Your task to perform on an android device: Search for pizza restaurants on Maps Image 0: 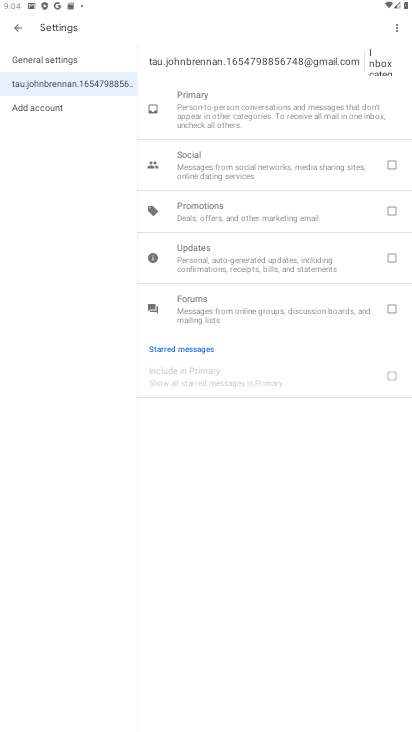
Step 0: press home button
Your task to perform on an android device: Search for pizza restaurants on Maps Image 1: 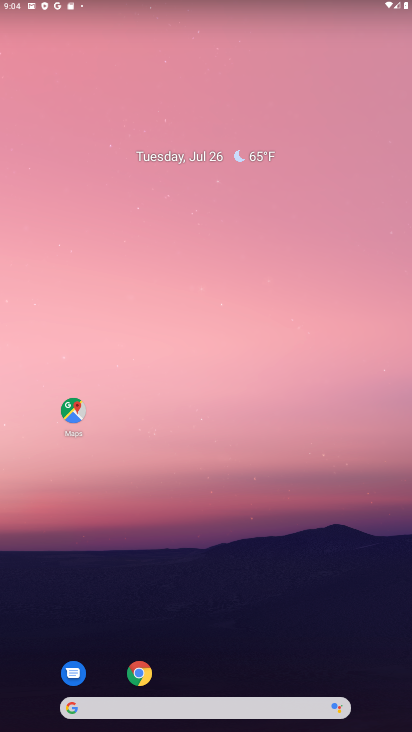
Step 1: click (73, 412)
Your task to perform on an android device: Search for pizza restaurants on Maps Image 2: 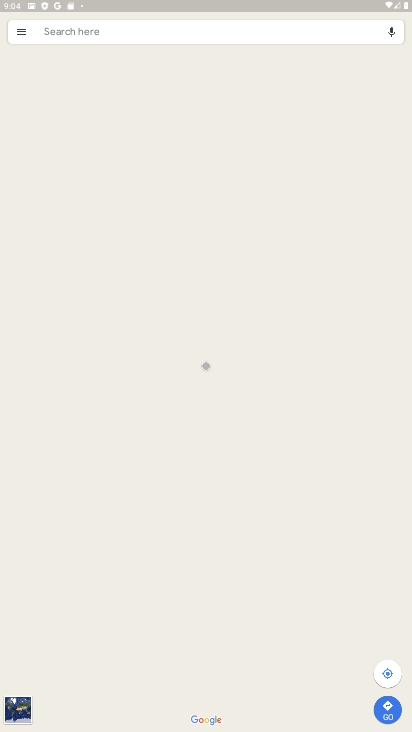
Step 2: click (108, 32)
Your task to perform on an android device: Search for pizza restaurants on Maps Image 3: 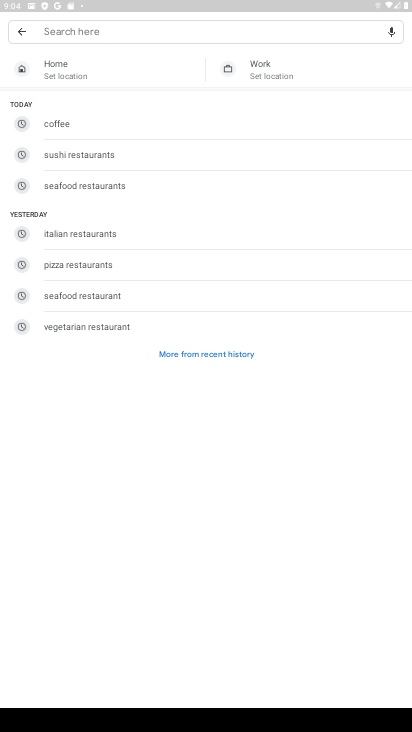
Step 3: type "pizza restaurants"
Your task to perform on an android device: Search for pizza restaurants on Maps Image 4: 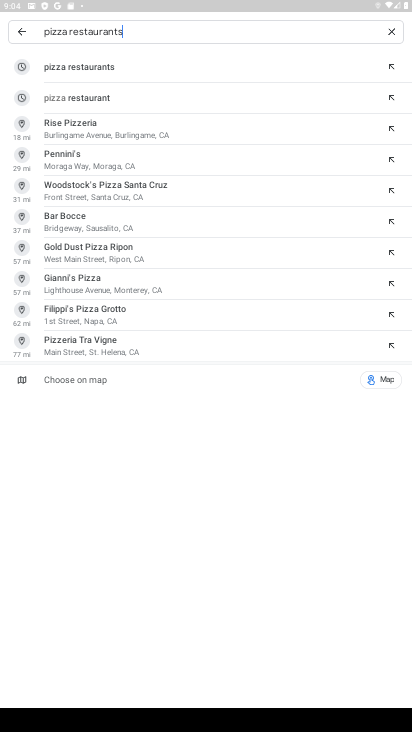
Step 4: click (94, 61)
Your task to perform on an android device: Search for pizza restaurants on Maps Image 5: 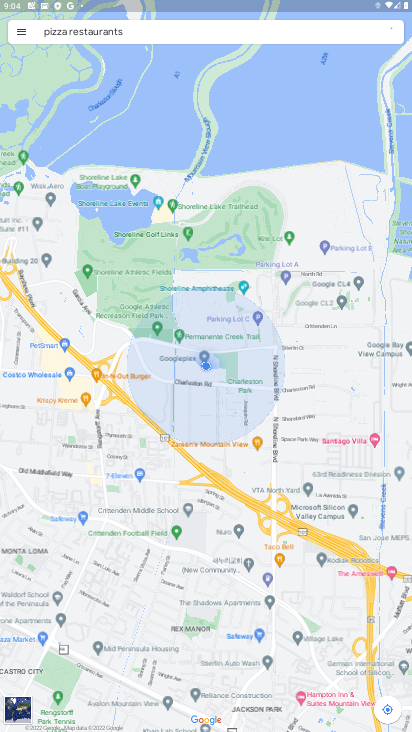
Step 5: drag from (225, 321) to (219, 388)
Your task to perform on an android device: Search for pizza restaurants on Maps Image 6: 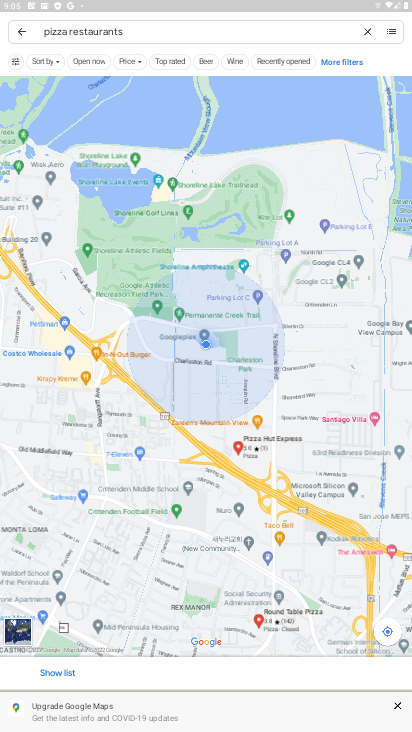
Step 6: click (53, 674)
Your task to perform on an android device: Search for pizza restaurants on Maps Image 7: 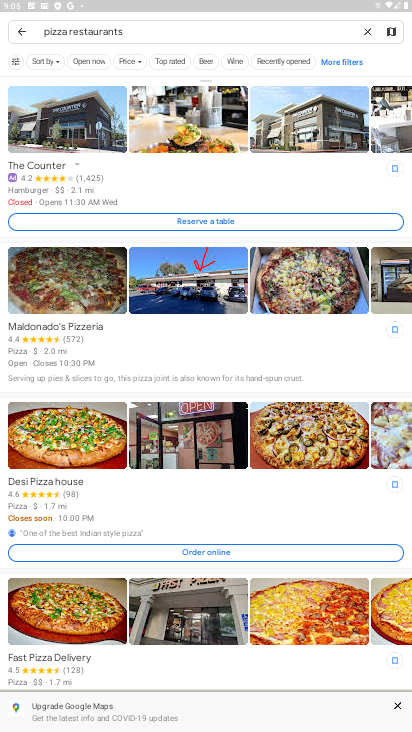
Step 7: task complete